Your task to perform on an android device: turn on wifi Image 0: 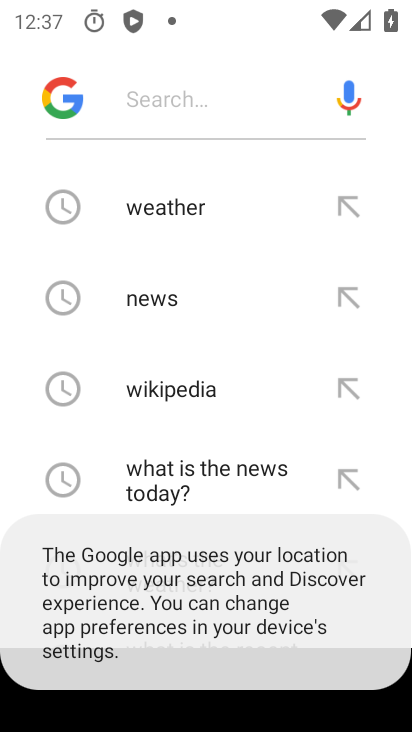
Step 0: press back button
Your task to perform on an android device: turn on wifi Image 1: 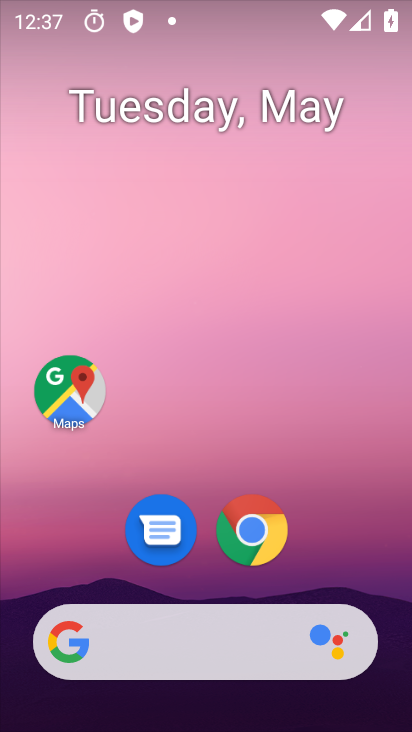
Step 1: drag from (359, 508) to (240, 16)
Your task to perform on an android device: turn on wifi Image 2: 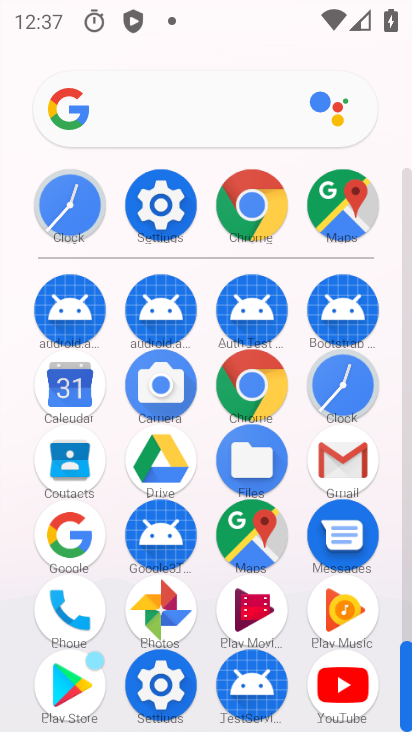
Step 2: click (159, 198)
Your task to perform on an android device: turn on wifi Image 3: 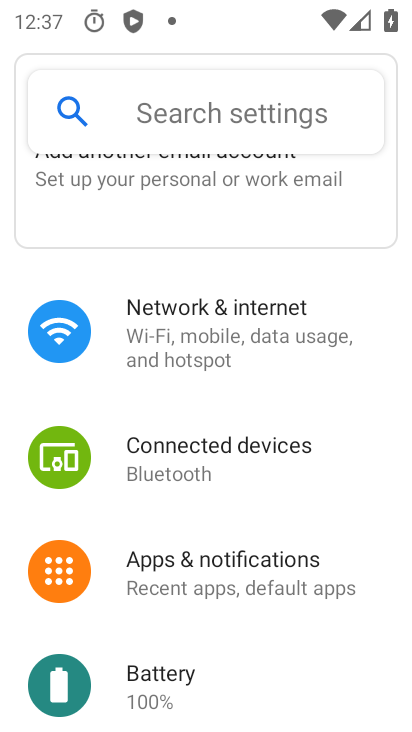
Step 3: click (214, 315)
Your task to perform on an android device: turn on wifi Image 4: 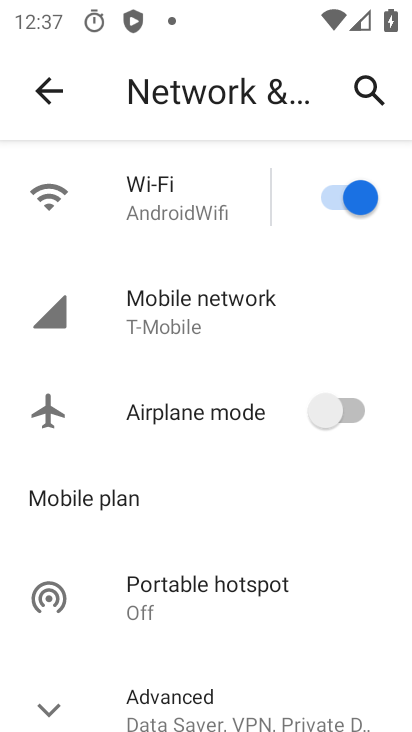
Step 4: click (48, 708)
Your task to perform on an android device: turn on wifi Image 5: 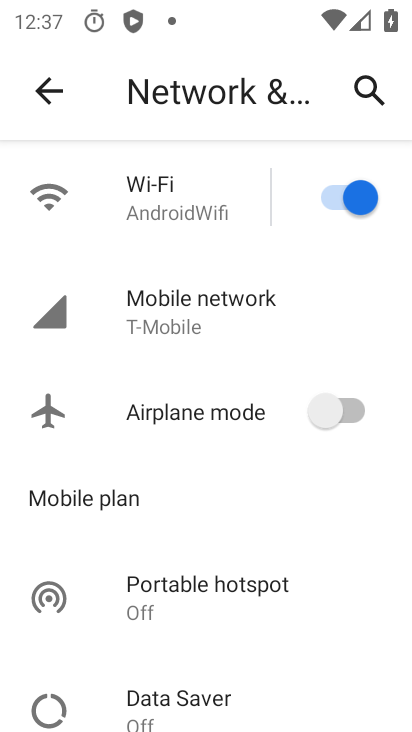
Step 5: task complete